Your task to perform on an android device: What's the weather going to be this weekend? Image 0: 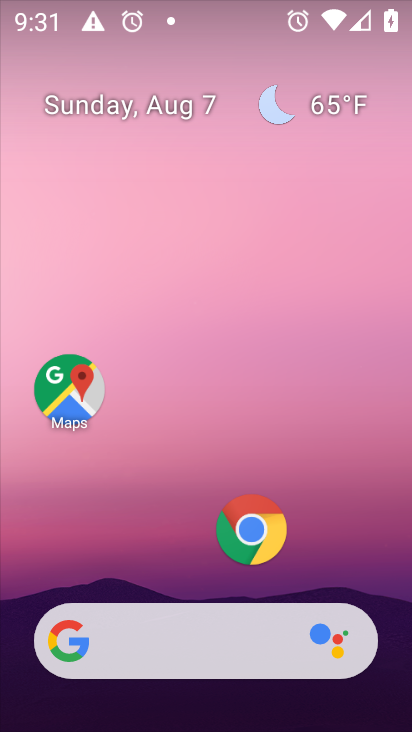
Step 0: click (320, 115)
Your task to perform on an android device: What's the weather going to be this weekend? Image 1: 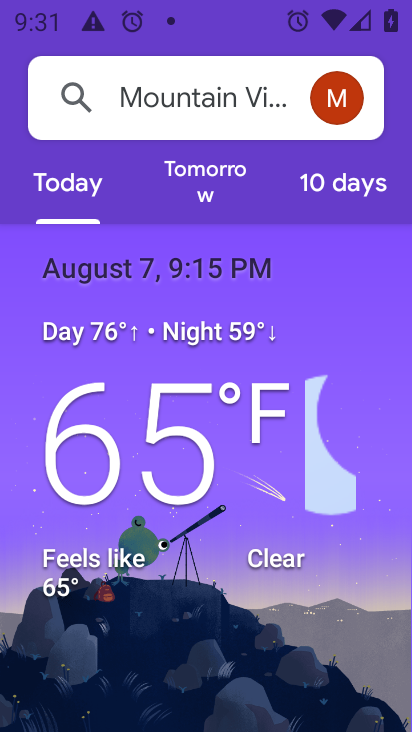
Step 1: click (357, 181)
Your task to perform on an android device: What's the weather going to be this weekend? Image 2: 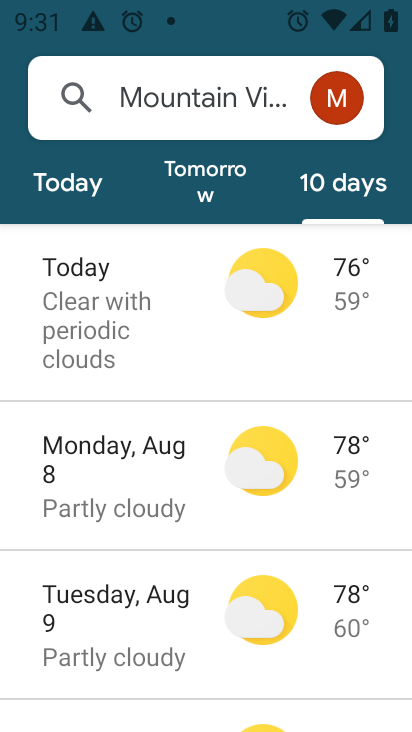
Step 2: task complete